Your task to perform on an android device: open wifi settings Image 0: 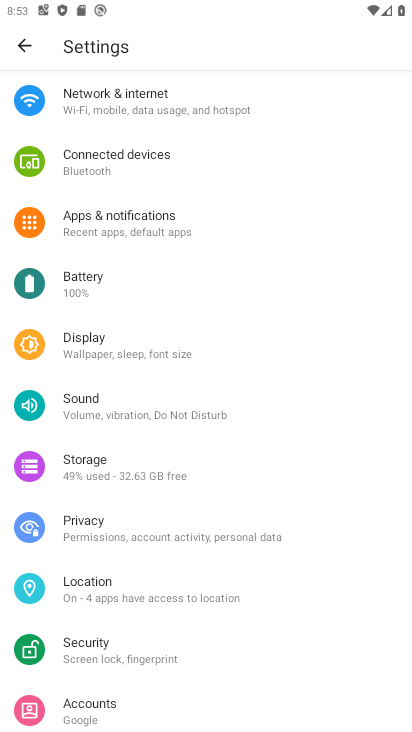
Step 0: click (170, 111)
Your task to perform on an android device: open wifi settings Image 1: 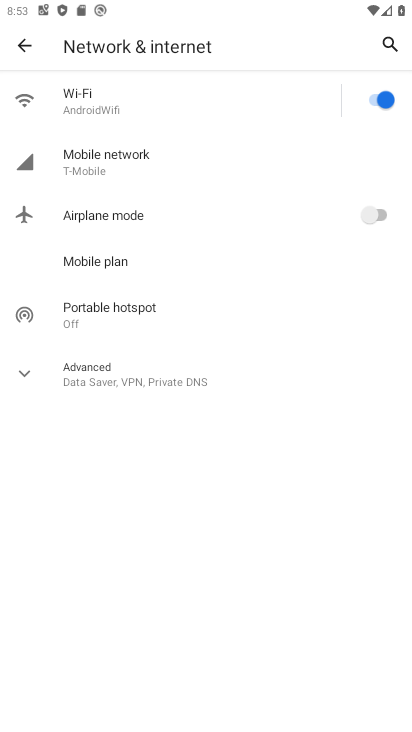
Step 1: click (51, 101)
Your task to perform on an android device: open wifi settings Image 2: 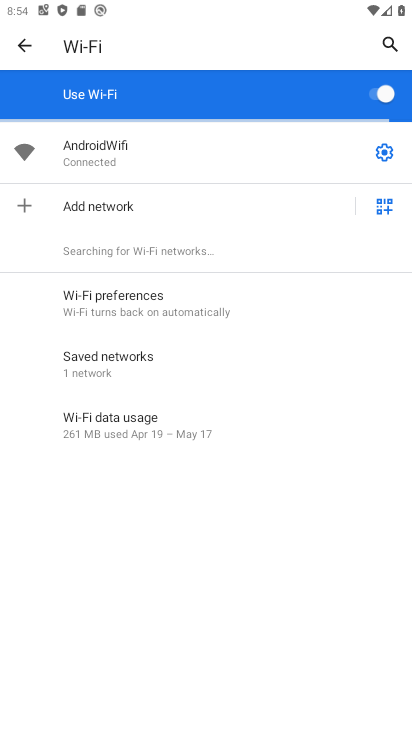
Step 2: task complete